Your task to perform on an android device: Open calendar and show me the third week of next month Image 0: 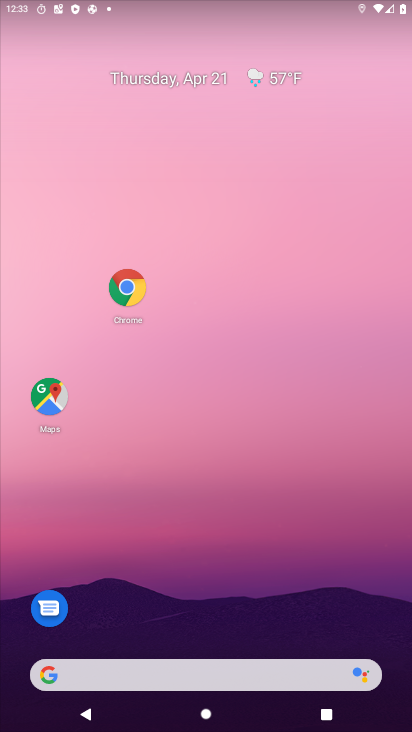
Step 0: drag from (266, 545) to (97, 79)
Your task to perform on an android device: Open calendar and show me the third week of next month Image 1: 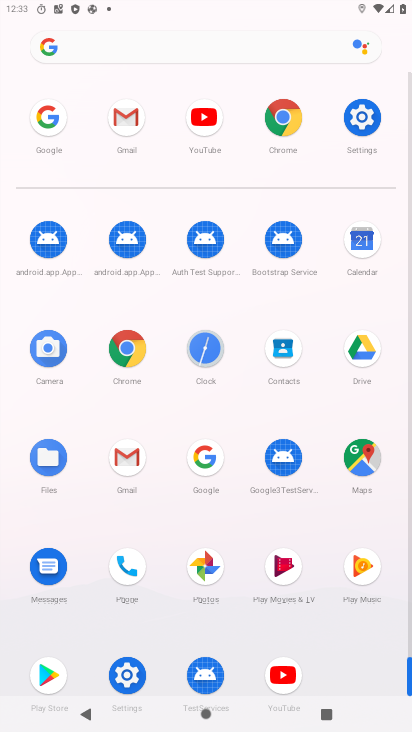
Step 1: click (359, 249)
Your task to perform on an android device: Open calendar and show me the third week of next month Image 2: 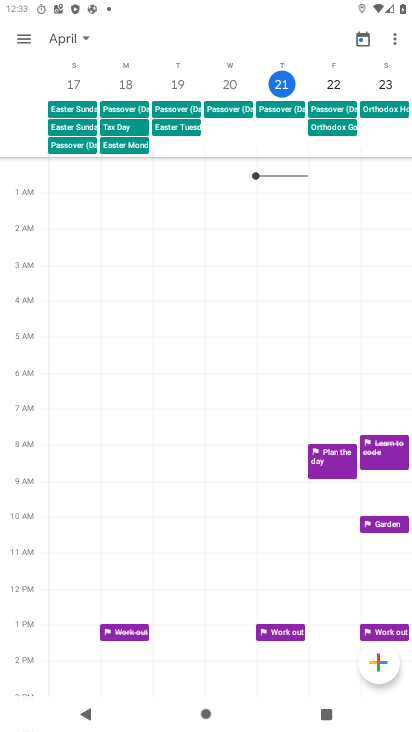
Step 2: click (79, 42)
Your task to perform on an android device: Open calendar and show me the third week of next month Image 3: 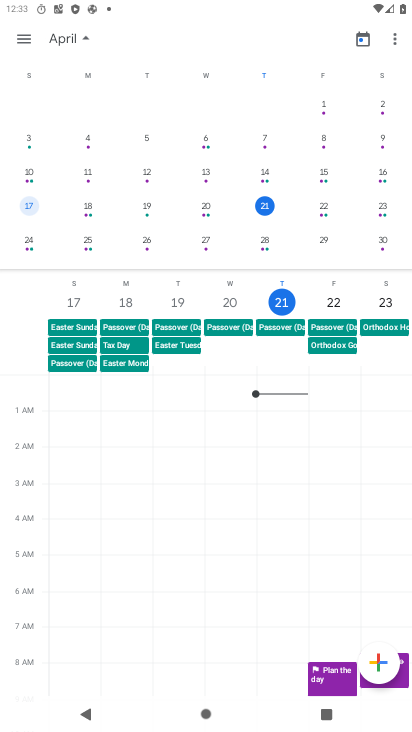
Step 3: drag from (357, 222) to (2, 241)
Your task to perform on an android device: Open calendar and show me the third week of next month Image 4: 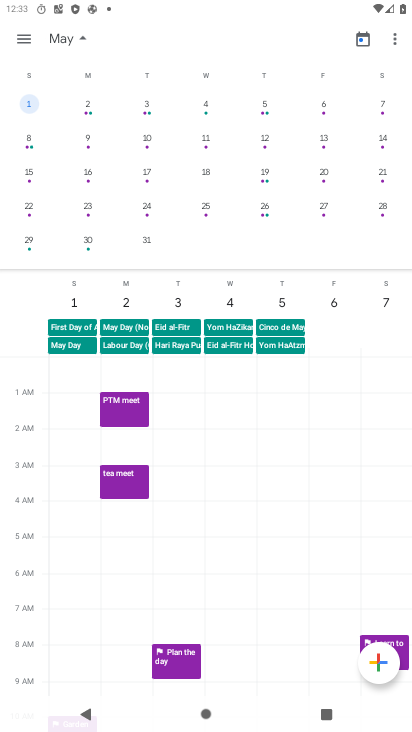
Step 4: click (23, 174)
Your task to perform on an android device: Open calendar and show me the third week of next month Image 5: 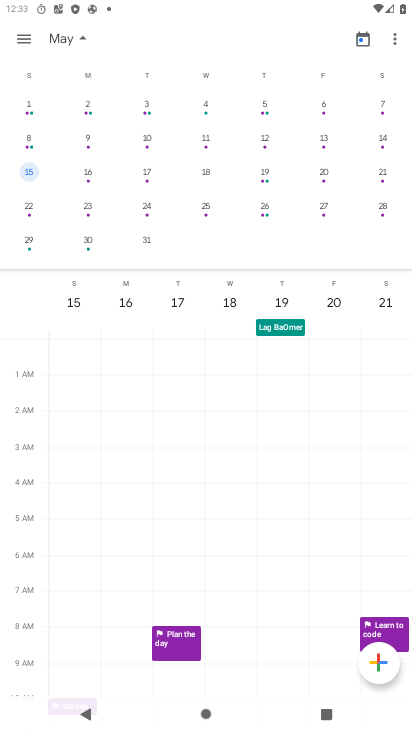
Step 5: click (62, 34)
Your task to perform on an android device: Open calendar and show me the third week of next month Image 6: 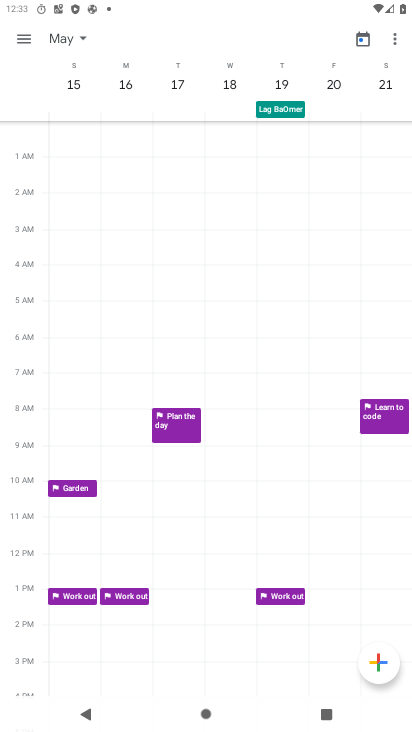
Step 6: task complete